Your task to perform on an android device: open app "Yahoo Mail" Image 0: 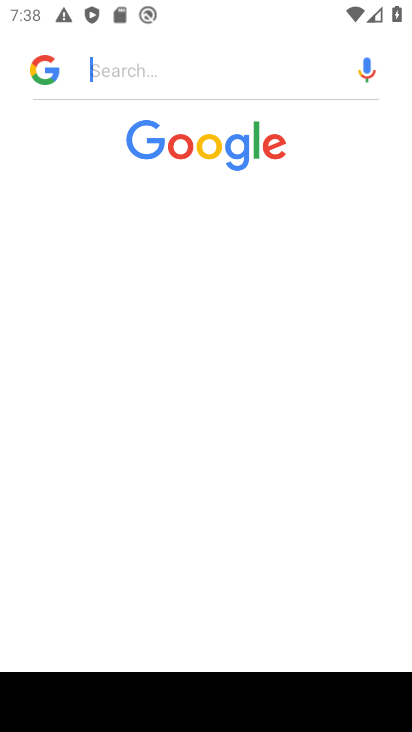
Step 0: press back button
Your task to perform on an android device: open app "Yahoo Mail" Image 1: 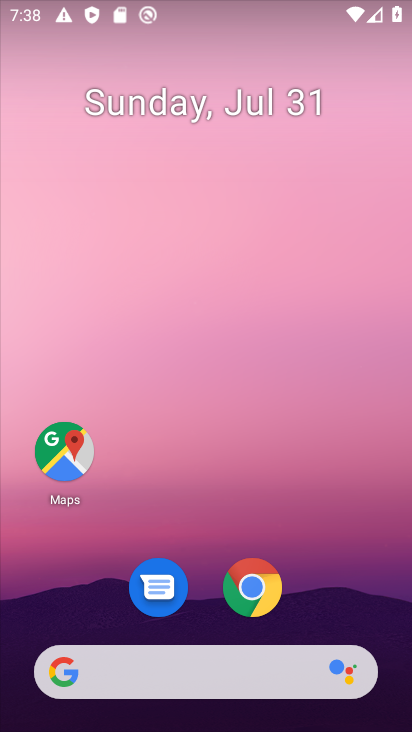
Step 1: drag from (205, 118) to (218, 79)
Your task to perform on an android device: open app "Yahoo Mail" Image 2: 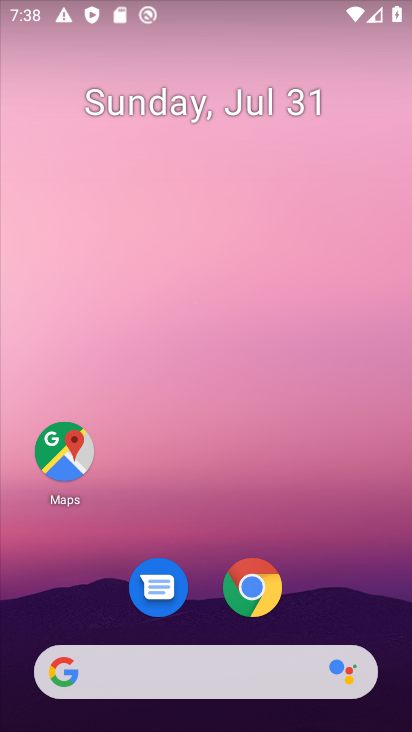
Step 2: drag from (264, 617) to (280, 151)
Your task to perform on an android device: open app "Yahoo Mail" Image 3: 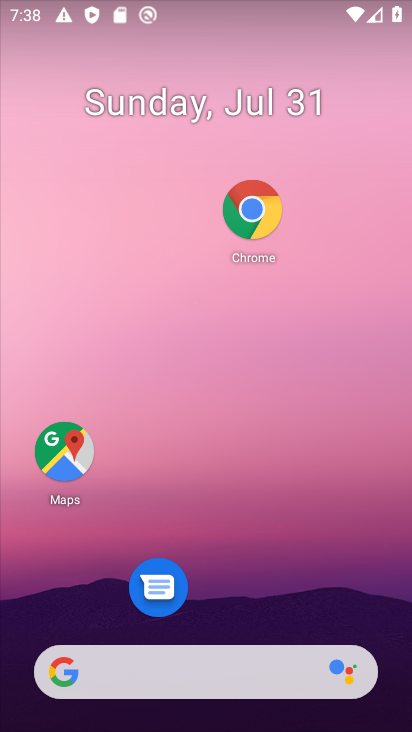
Step 3: click (130, 179)
Your task to perform on an android device: open app "Yahoo Mail" Image 4: 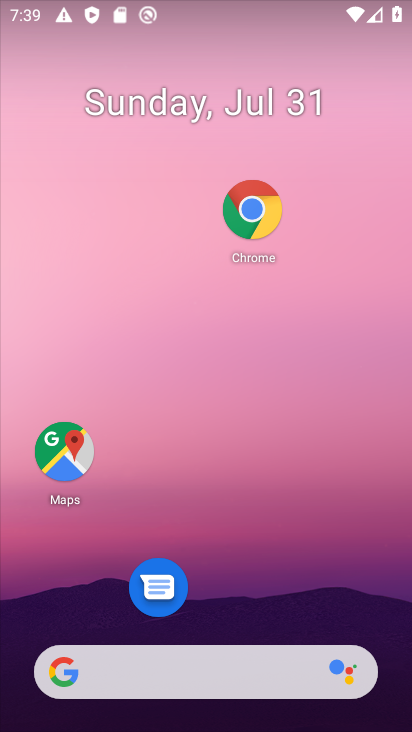
Step 4: drag from (247, 641) to (182, 124)
Your task to perform on an android device: open app "Yahoo Mail" Image 5: 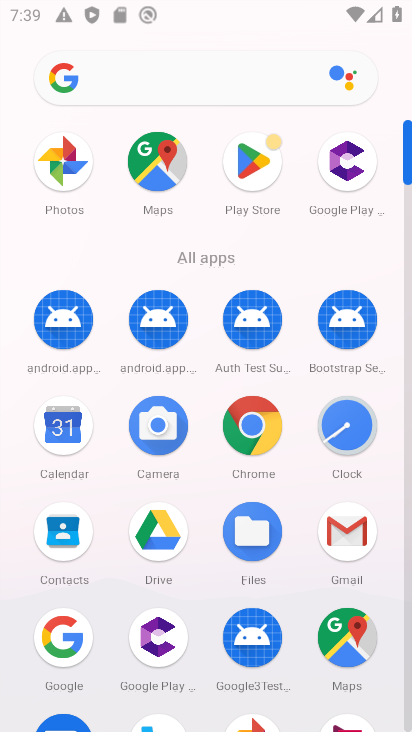
Step 5: drag from (283, 595) to (215, 144)
Your task to perform on an android device: open app "Yahoo Mail" Image 6: 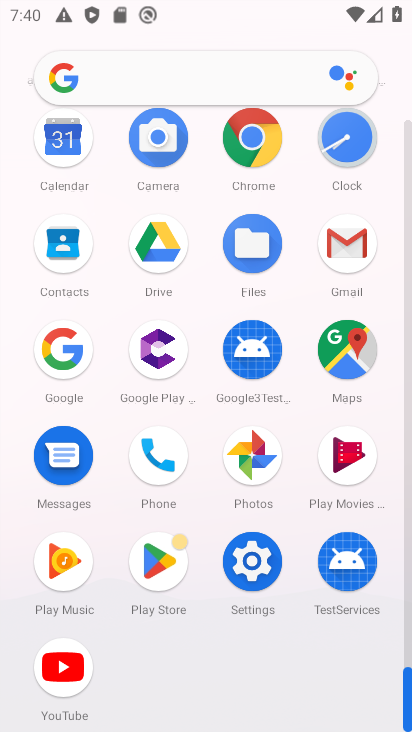
Step 6: click (154, 566)
Your task to perform on an android device: open app "Yahoo Mail" Image 7: 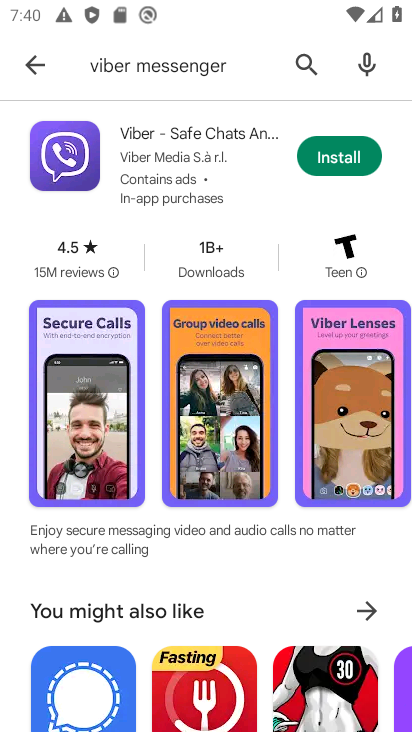
Step 7: click (164, 570)
Your task to perform on an android device: open app "Yahoo Mail" Image 8: 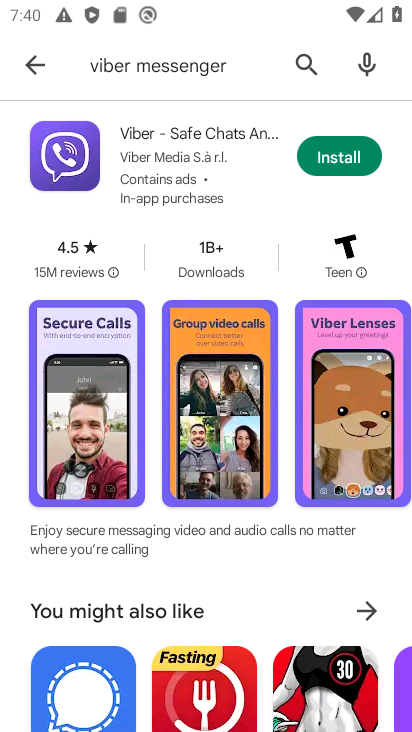
Step 8: click (165, 570)
Your task to perform on an android device: open app "Yahoo Mail" Image 9: 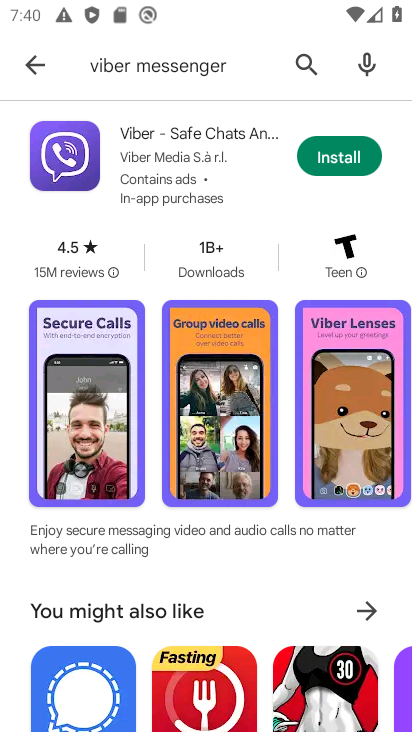
Step 9: click (18, 59)
Your task to perform on an android device: open app "Yahoo Mail" Image 10: 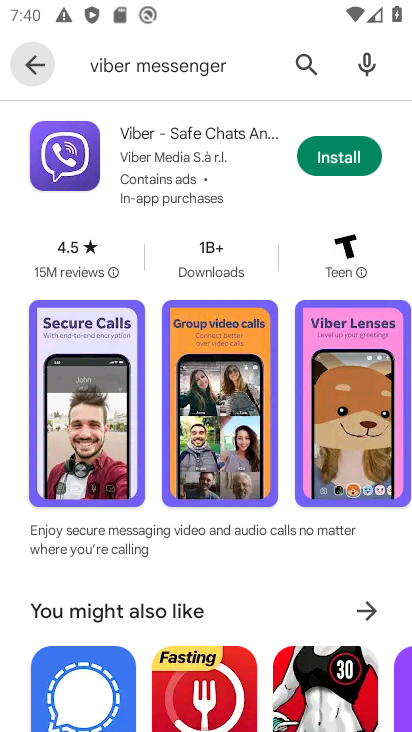
Step 10: click (28, 68)
Your task to perform on an android device: open app "Yahoo Mail" Image 11: 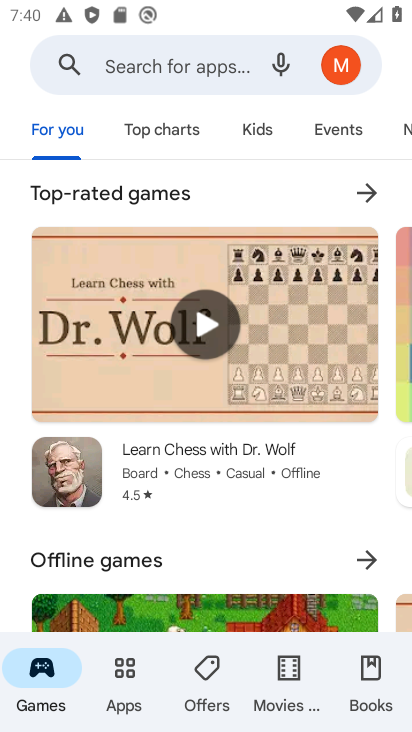
Step 11: click (182, 62)
Your task to perform on an android device: open app "Yahoo Mail" Image 12: 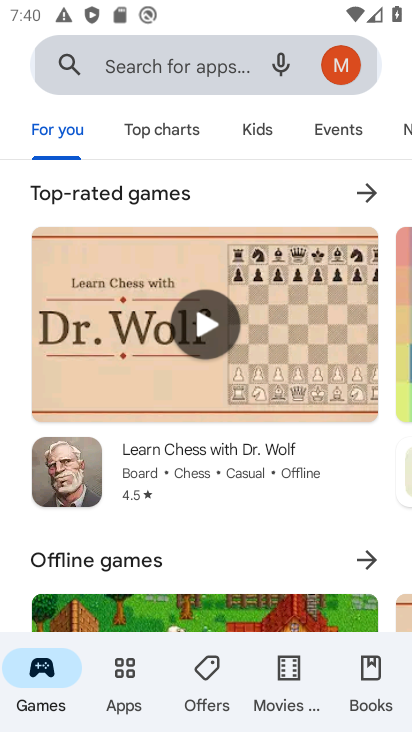
Step 12: click (182, 62)
Your task to perform on an android device: open app "Yahoo Mail" Image 13: 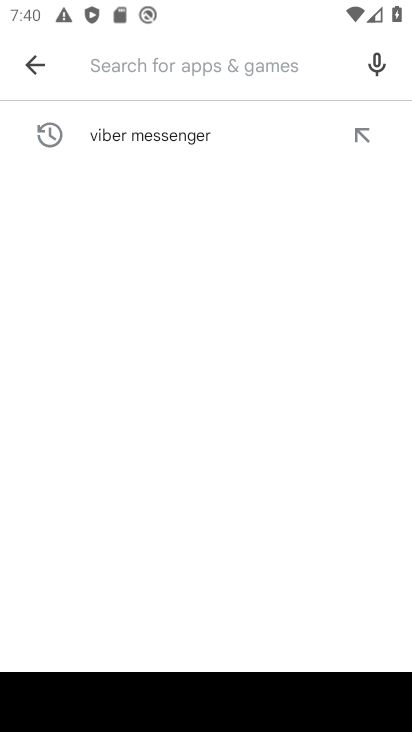
Step 13: type "yahoo mail"
Your task to perform on an android device: open app "Yahoo Mail" Image 14: 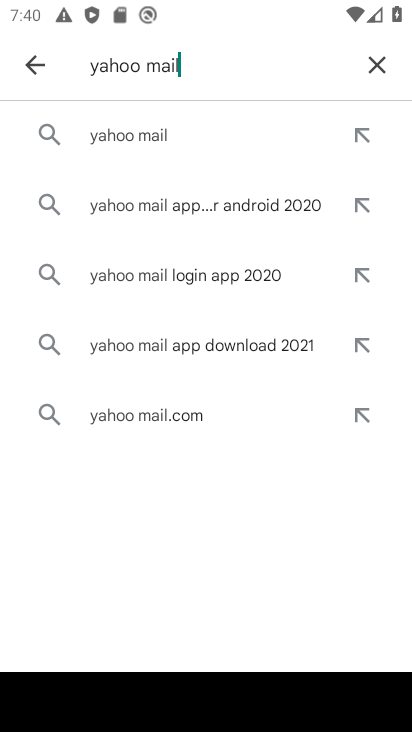
Step 14: click (151, 133)
Your task to perform on an android device: open app "Yahoo Mail" Image 15: 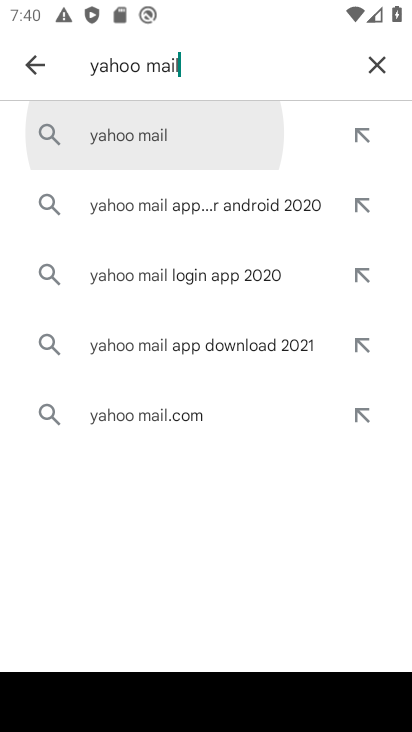
Step 15: click (158, 135)
Your task to perform on an android device: open app "Yahoo Mail" Image 16: 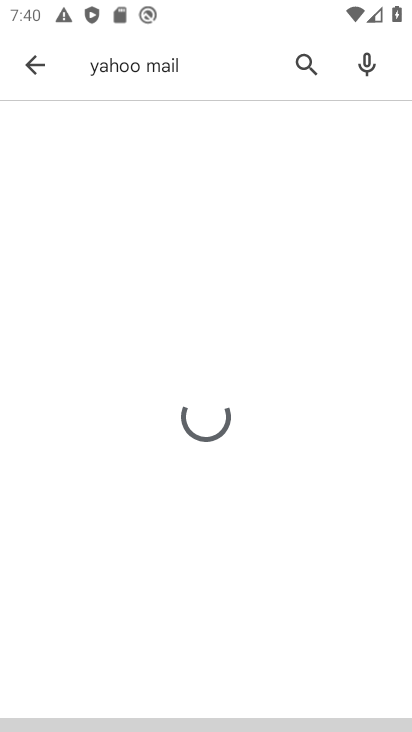
Step 16: click (160, 134)
Your task to perform on an android device: open app "Yahoo Mail" Image 17: 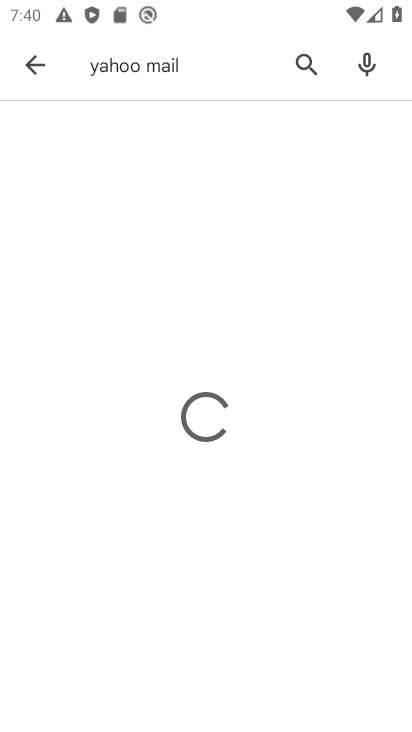
Step 17: click (160, 134)
Your task to perform on an android device: open app "Yahoo Mail" Image 18: 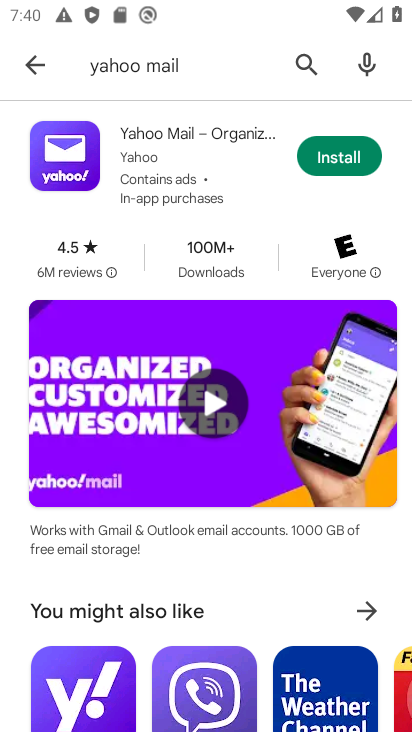
Step 18: click (320, 149)
Your task to perform on an android device: open app "Yahoo Mail" Image 19: 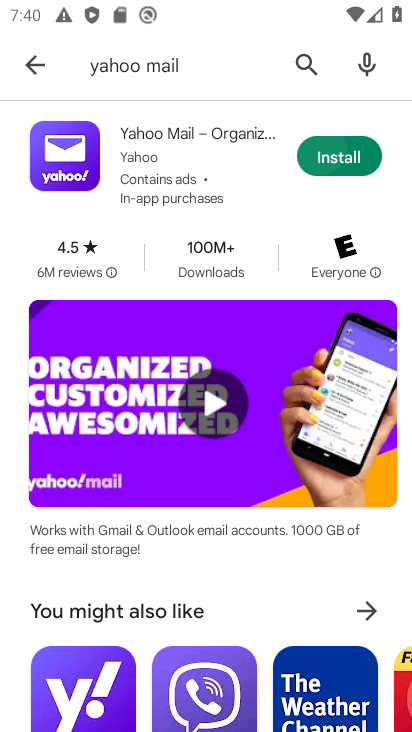
Step 19: click (320, 149)
Your task to perform on an android device: open app "Yahoo Mail" Image 20: 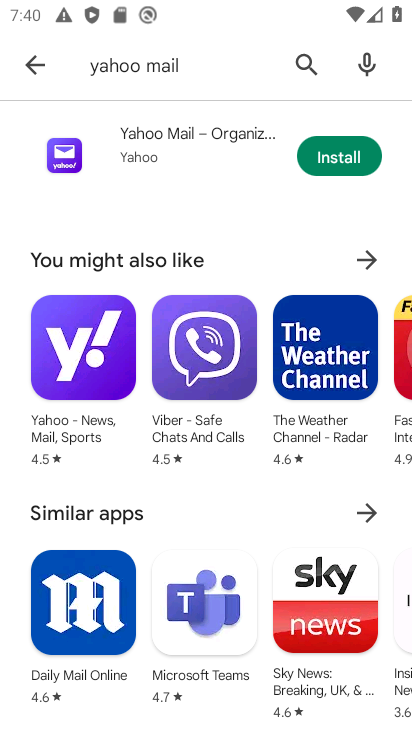
Step 20: click (324, 154)
Your task to perform on an android device: open app "Yahoo Mail" Image 21: 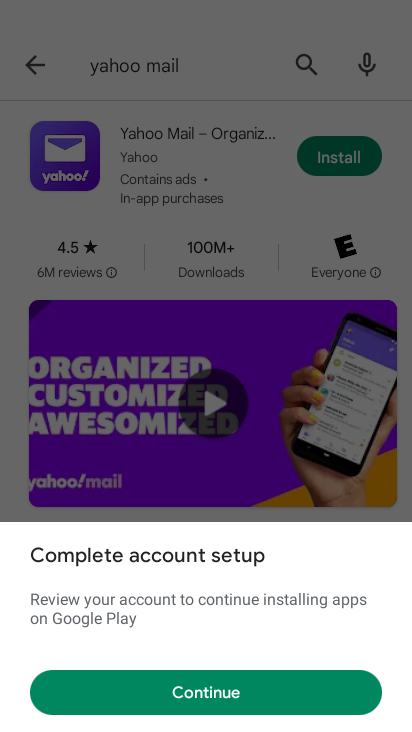
Step 21: click (204, 685)
Your task to perform on an android device: open app "Yahoo Mail" Image 22: 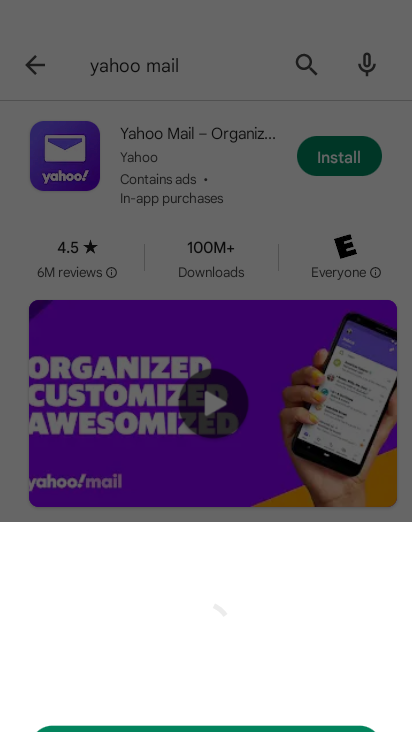
Step 22: click (233, 695)
Your task to perform on an android device: open app "Yahoo Mail" Image 23: 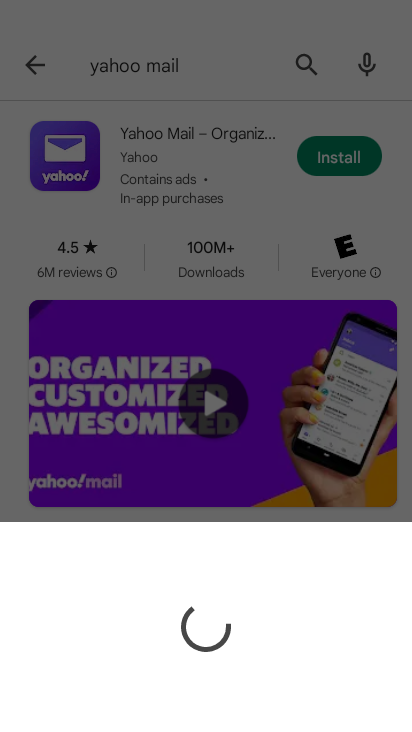
Step 23: click (237, 694)
Your task to perform on an android device: open app "Yahoo Mail" Image 24: 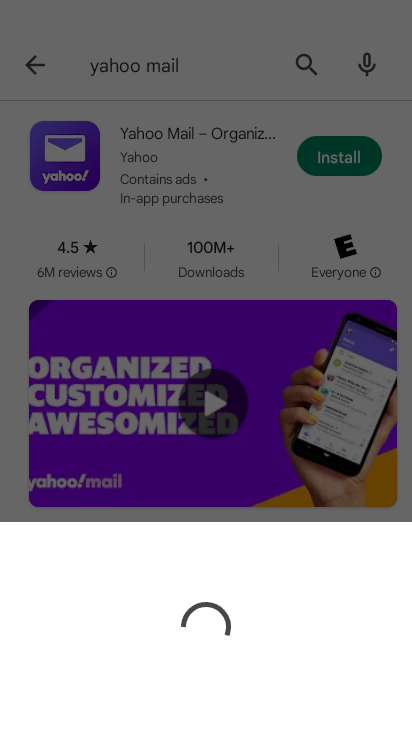
Step 24: click (242, 694)
Your task to perform on an android device: open app "Yahoo Mail" Image 25: 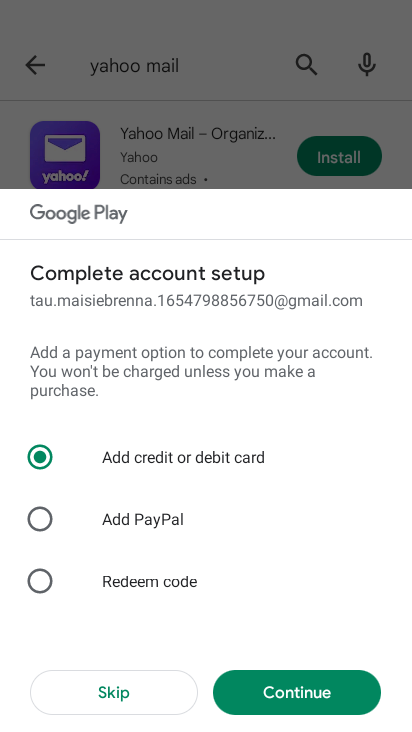
Step 25: click (130, 701)
Your task to perform on an android device: open app "Yahoo Mail" Image 26: 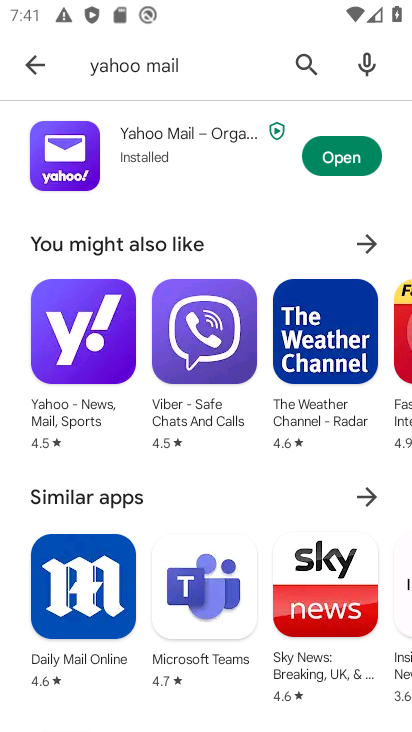
Step 26: click (352, 147)
Your task to perform on an android device: open app "Yahoo Mail" Image 27: 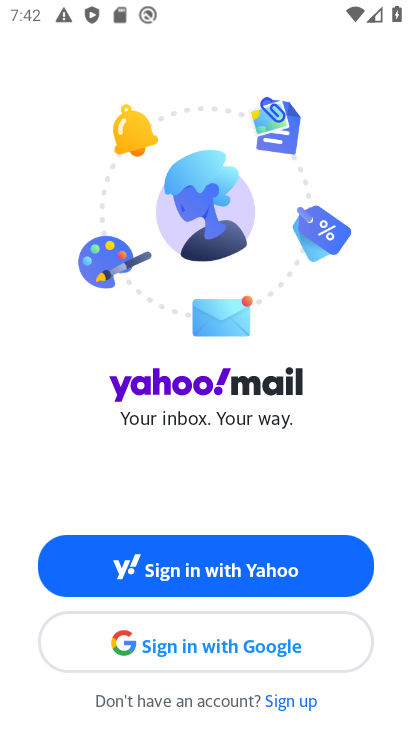
Step 27: click (285, 702)
Your task to perform on an android device: open app "Yahoo Mail" Image 28: 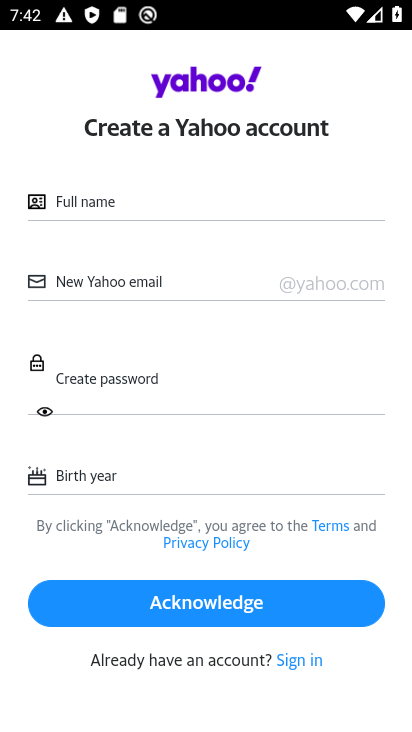
Step 28: task complete